Your task to perform on an android device: Go to location settings Image 0: 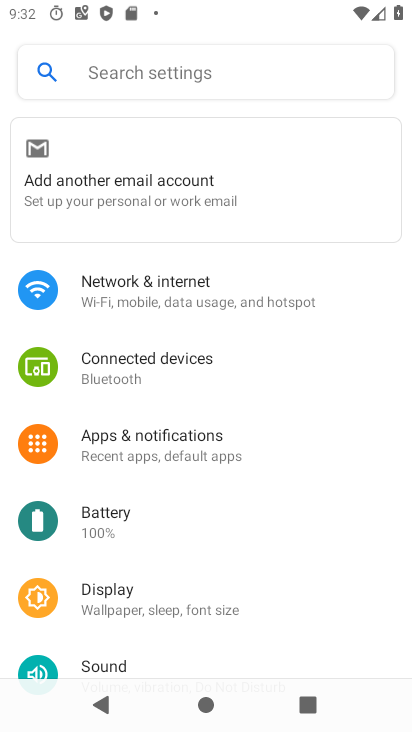
Step 0: drag from (181, 624) to (278, 38)
Your task to perform on an android device: Go to location settings Image 1: 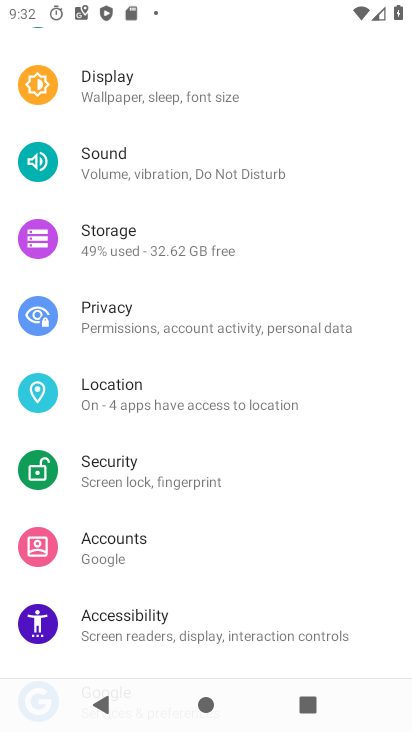
Step 1: click (102, 398)
Your task to perform on an android device: Go to location settings Image 2: 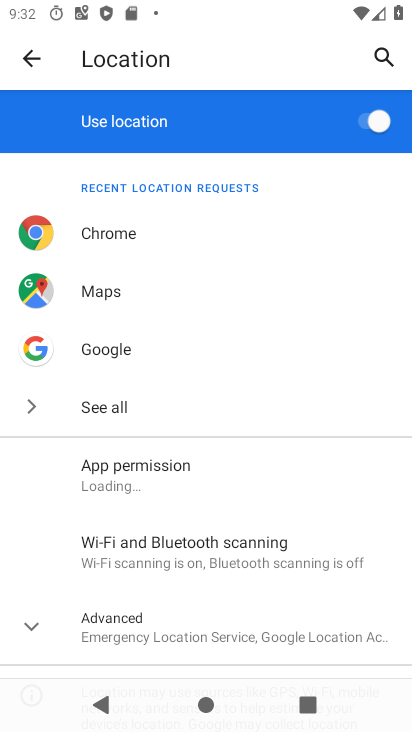
Step 2: task complete